Your task to perform on an android device: find which apps use the phone's location Image 0: 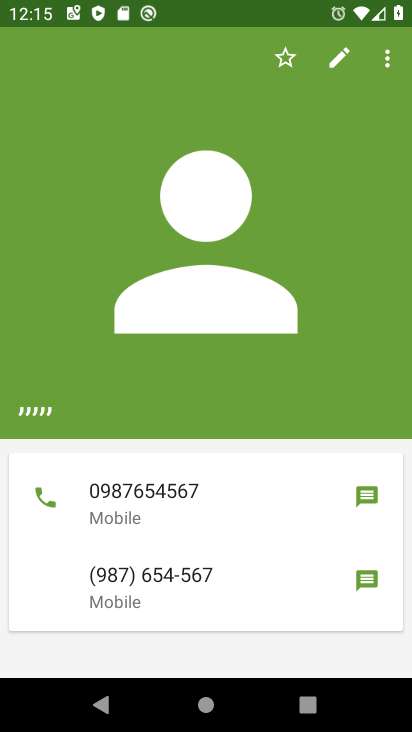
Step 0: press home button
Your task to perform on an android device: find which apps use the phone's location Image 1: 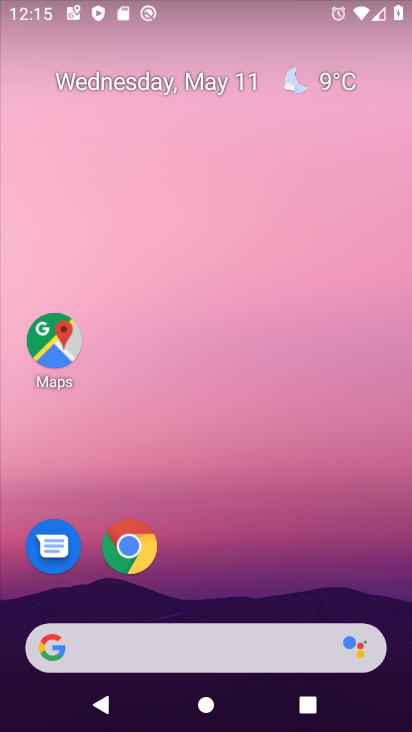
Step 1: drag from (195, 584) to (199, 101)
Your task to perform on an android device: find which apps use the phone's location Image 2: 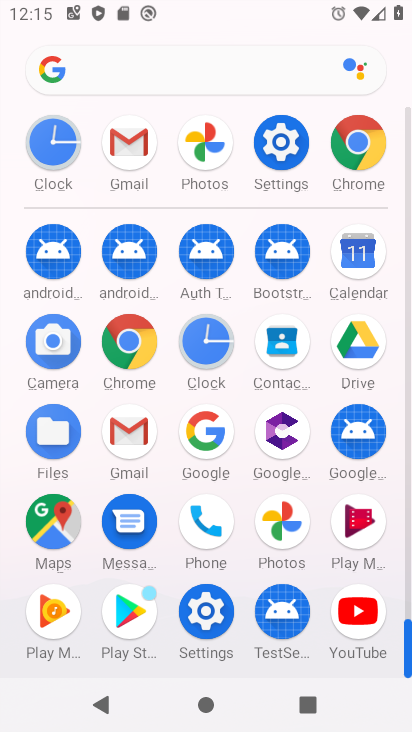
Step 2: drag from (256, 582) to (248, 242)
Your task to perform on an android device: find which apps use the phone's location Image 3: 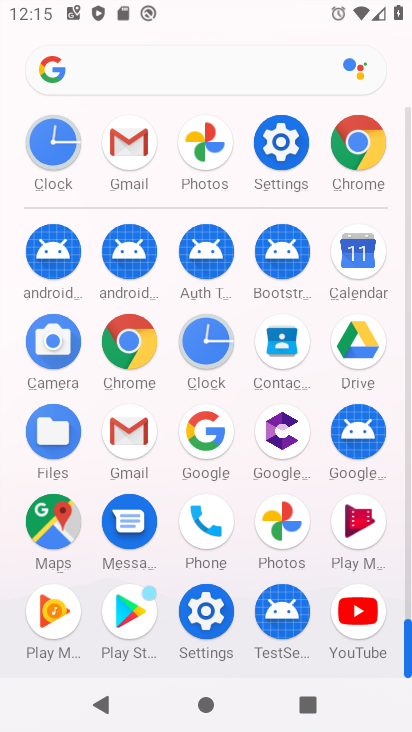
Step 3: click (203, 604)
Your task to perform on an android device: find which apps use the phone's location Image 4: 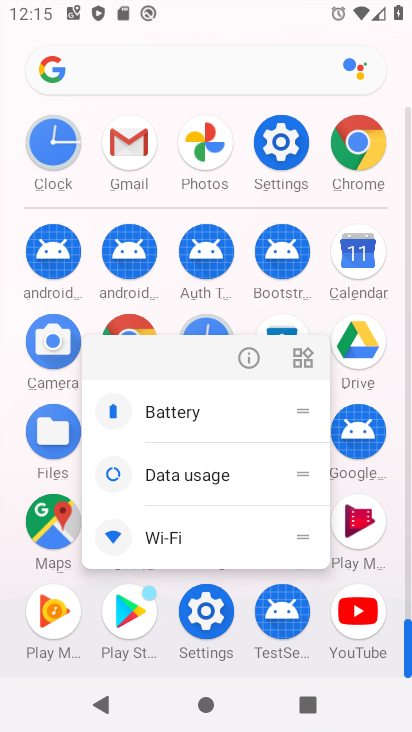
Step 4: click (257, 358)
Your task to perform on an android device: find which apps use the phone's location Image 5: 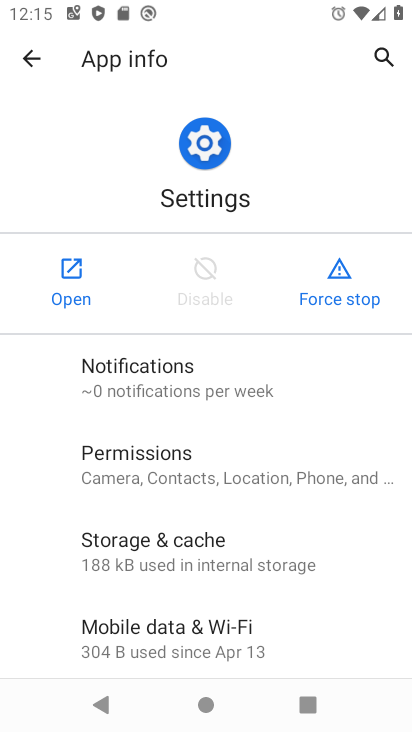
Step 5: click (62, 276)
Your task to perform on an android device: find which apps use the phone's location Image 6: 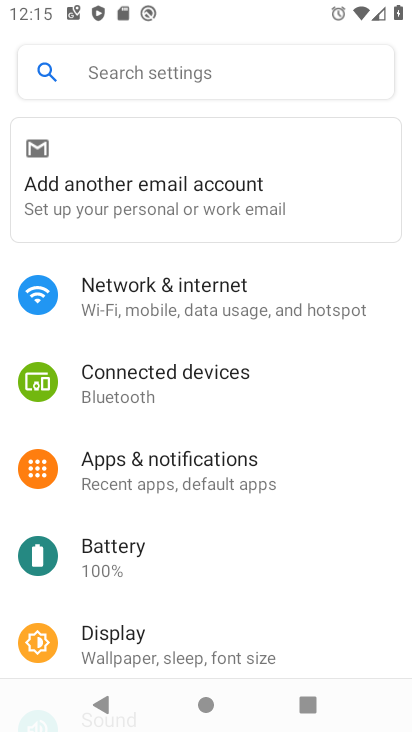
Step 6: drag from (192, 617) to (273, 317)
Your task to perform on an android device: find which apps use the phone's location Image 7: 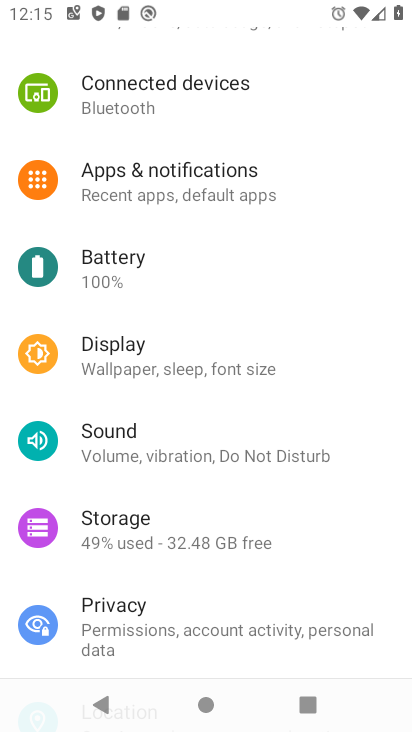
Step 7: drag from (181, 470) to (242, 310)
Your task to perform on an android device: find which apps use the phone's location Image 8: 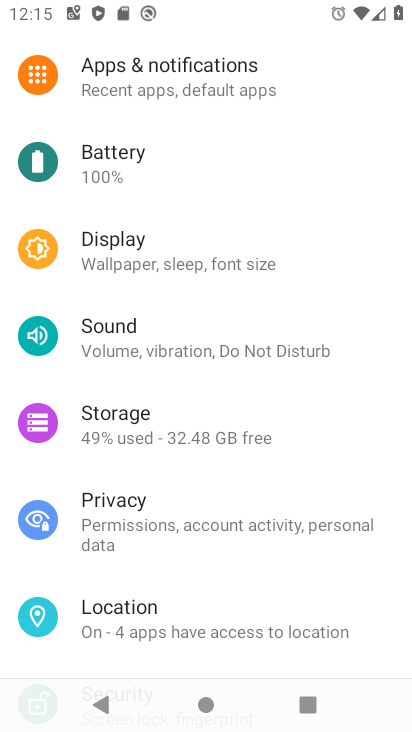
Step 8: click (172, 593)
Your task to perform on an android device: find which apps use the phone's location Image 9: 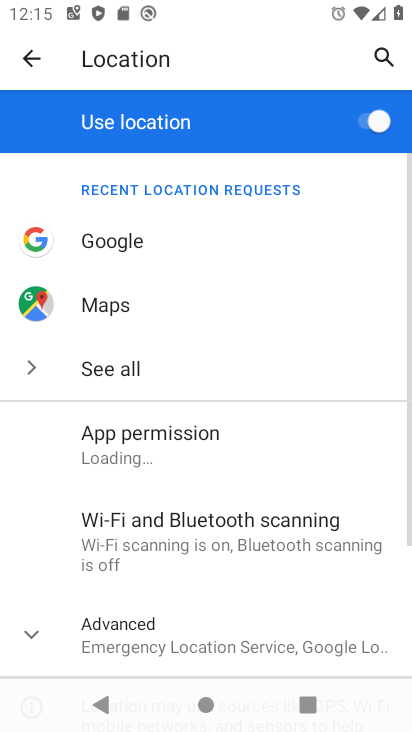
Step 9: drag from (109, 630) to (231, 161)
Your task to perform on an android device: find which apps use the phone's location Image 10: 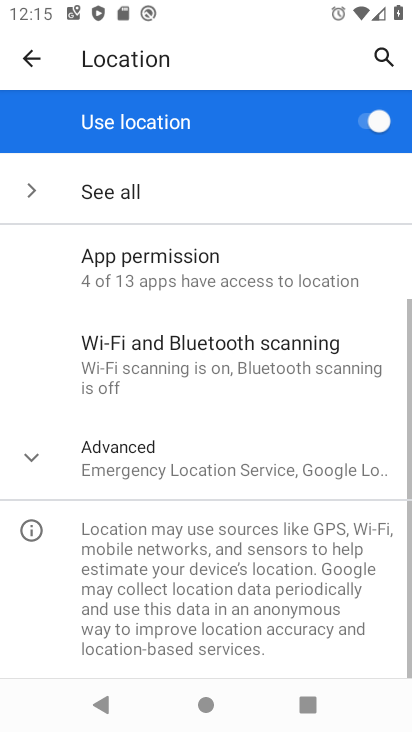
Step 10: click (192, 453)
Your task to perform on an android device: find which apps use the phone's location Image 11: 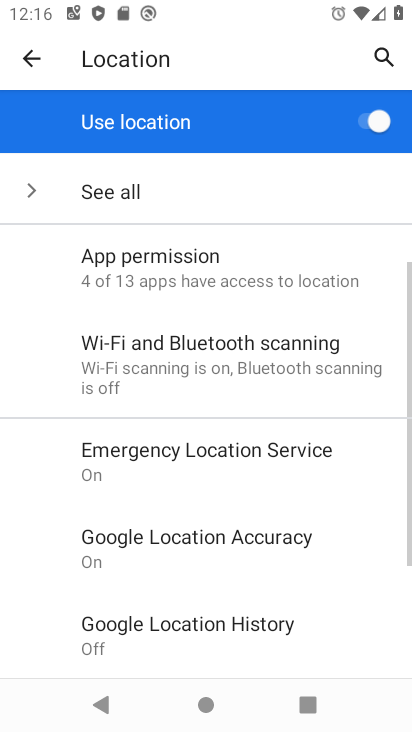
Step 11: drag from (177, 649) to (295, 332)
Your task to perform on an android device: find which apps use the phone's location Image 12: 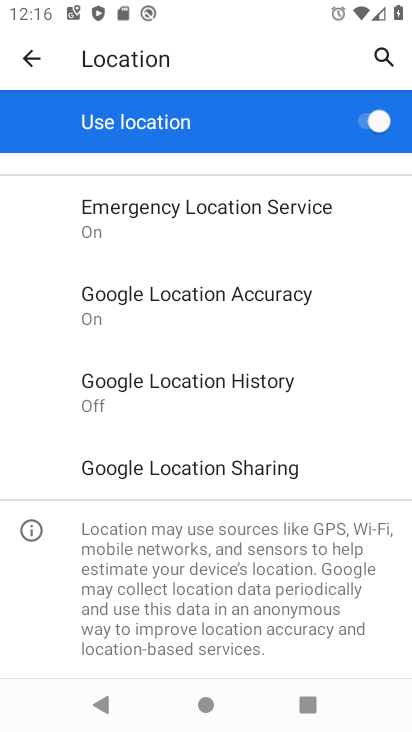
Step 12: drag from (271, 312) to (258, 667)
Your task to perform on an android device: find which apps use the phone's location Image 13: 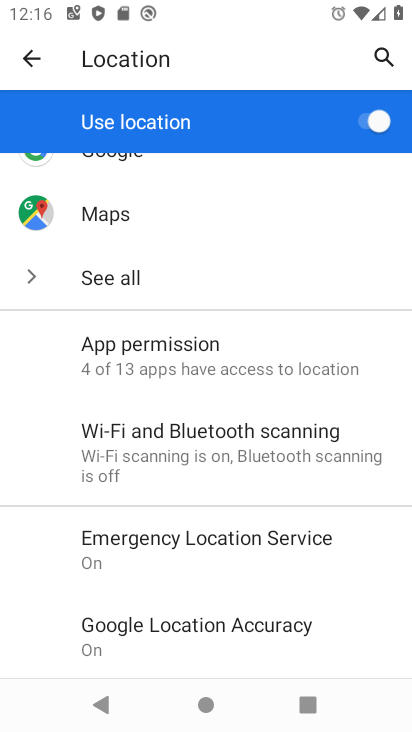
Step 13: click (174, 362)
Your task to perform on an android device: find which apps use the phone's location Image 14: 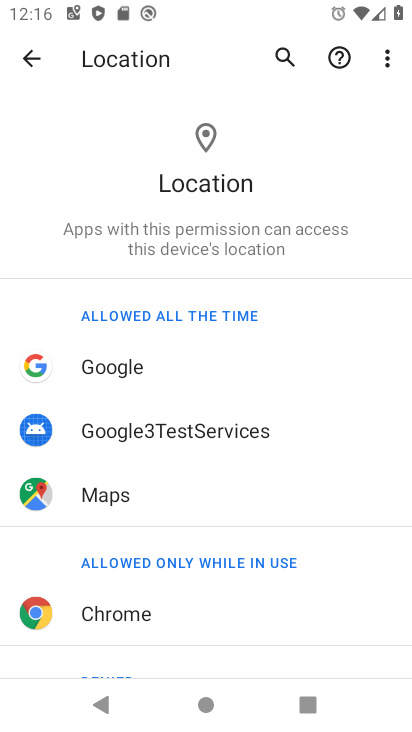
Step 14: task complete